Your task to perform on an android device: turn off notifications in google photos Image 0: 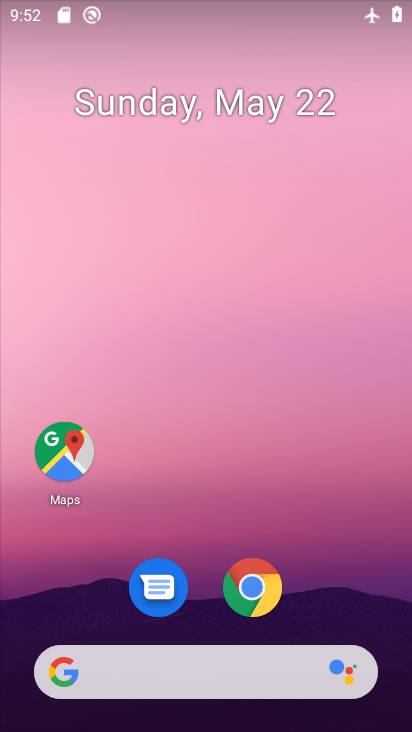
Step 0: drag from (193, 507) to (232, 31)
Your task to perform on an android device: turn off notifications in google photos Image 1: 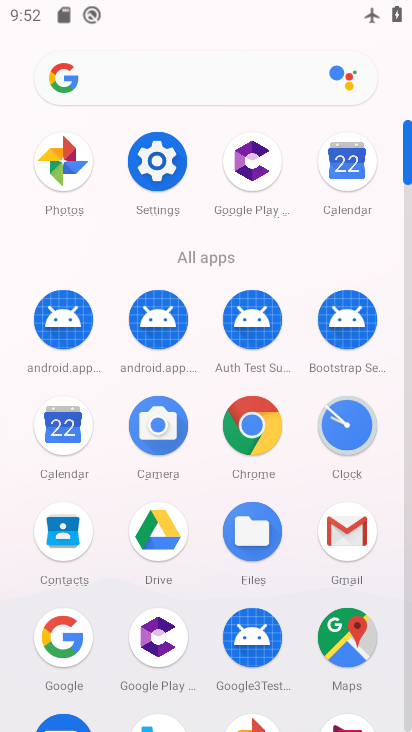
Step 1: click (74, 162)
Your task to perform on an android device: turn off notifications in google photos Image 2: 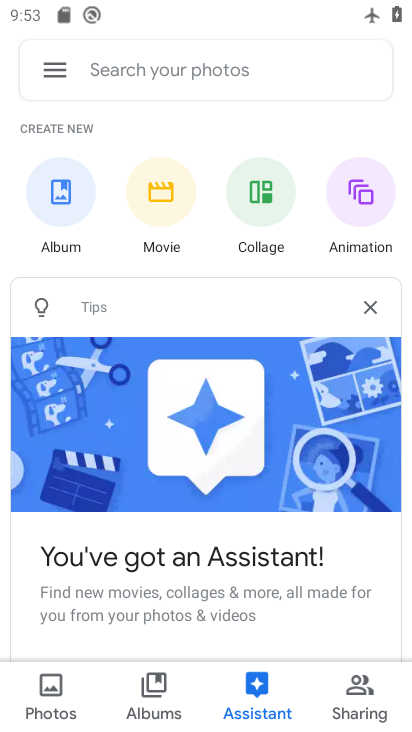
Step 2: click (53, 70)
Your task to perform on an android device: turn off notifications in google photos Image 3: 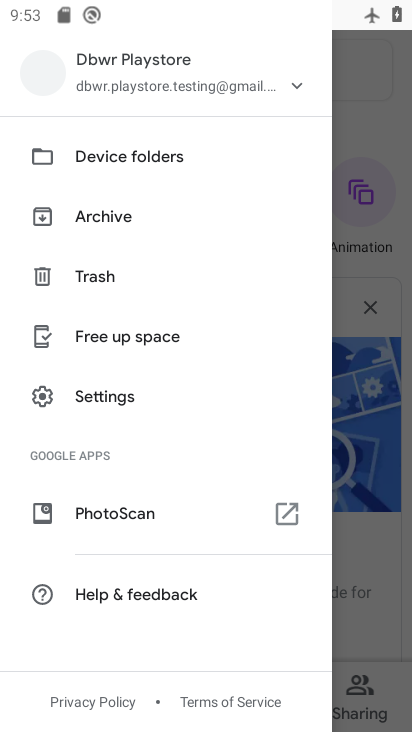
Step 3: click (104, 388)
Your task to perform on an android device: turn off notifications in google photos Image 4: 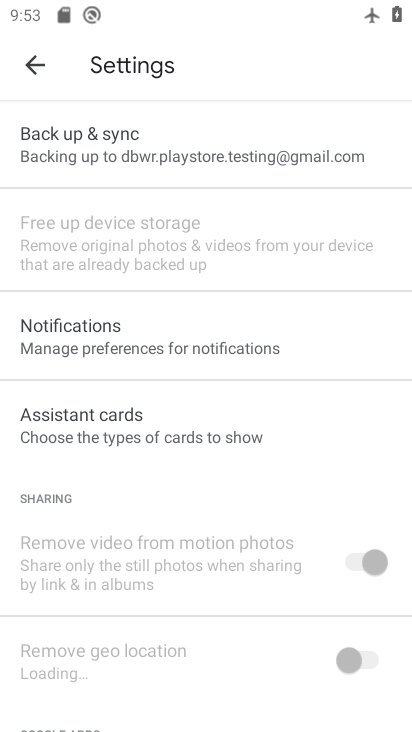
Step 4: click (149, 341)
Your task to perform on an android device: turn off notifications in google photos Image 5: 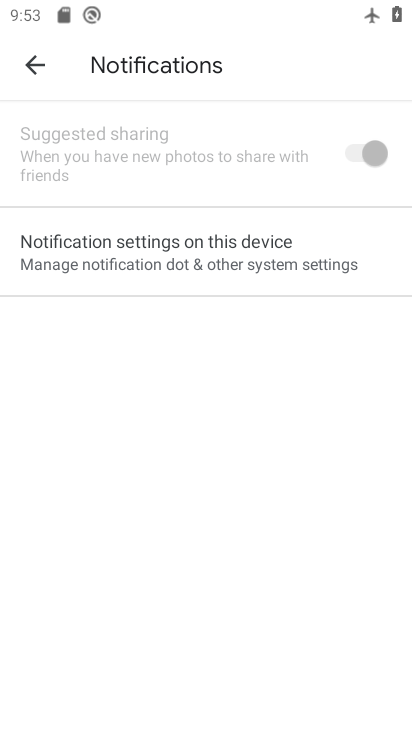
Step 5: click (209, 248)
Your task to perform on an android device: turn off notifications in google photos Image 6: 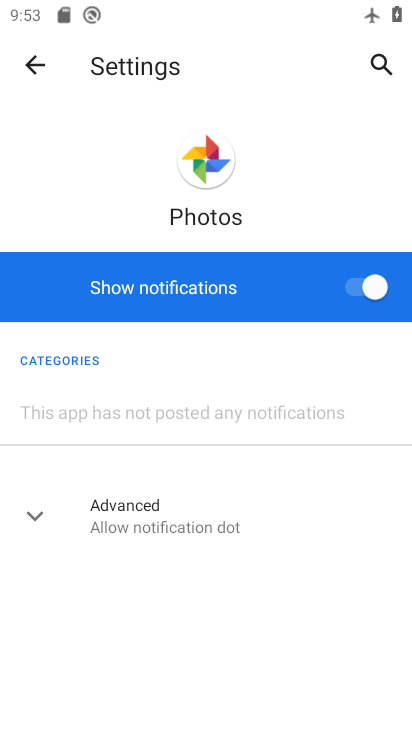
Step 6: click (355, 288)
Your task to perform on an android device: turn off notifications in google photos Image 7: 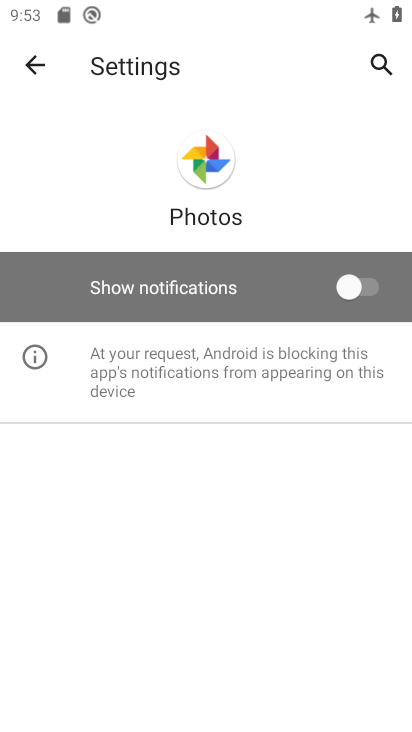
Step 7: task complete